Your task to perform on an android device: check android version Image 0: 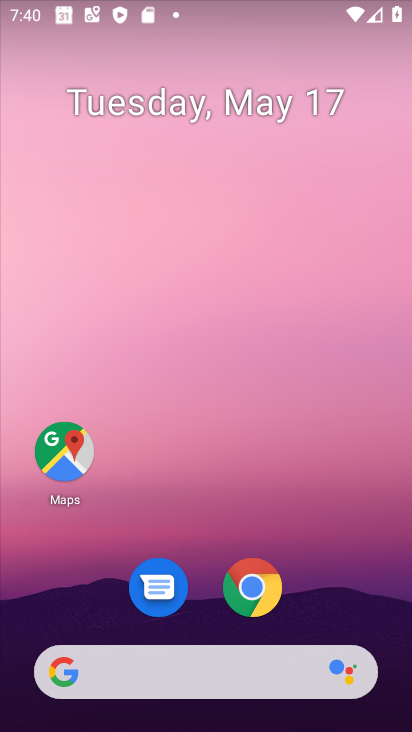
Step 0: drag from (197, 647) to (197, 350)
Your task to perform on an android device: check android version Image 1: 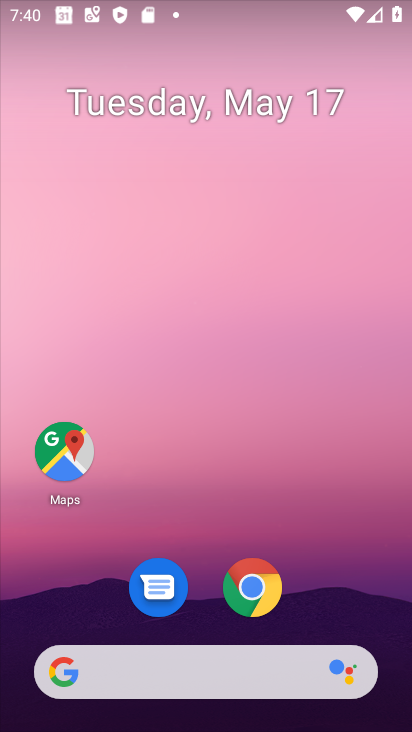
Step 1: drag from (216, 614) to (196, 204)
Your task to perform on an android device: check android version Image 2: 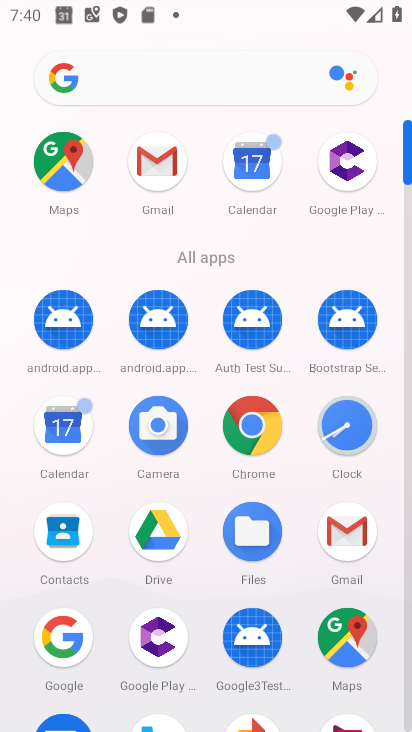
Step 2: drag from (209, 641) to (209, 166)
Your task to perform on an android device: check android version Image 3: 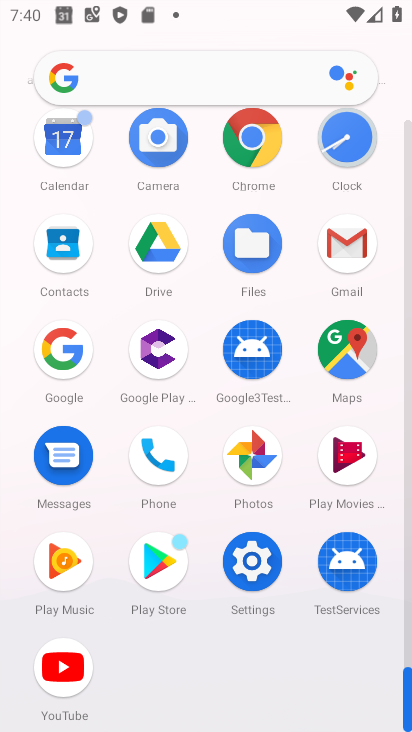
Step 3: click (251, 574)
Your task to perform on an android device: check android version Image 4: 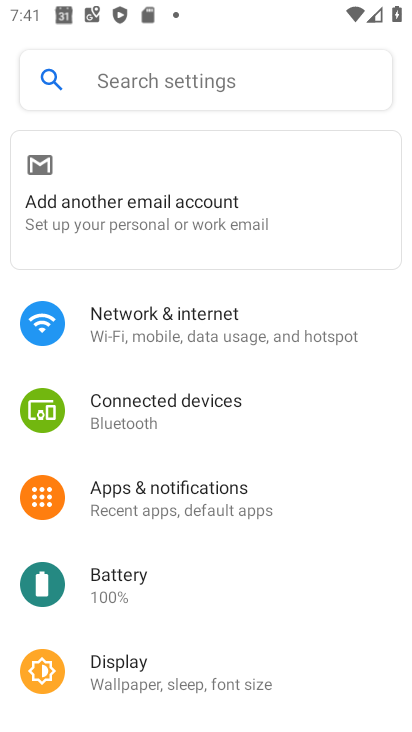
Step 4: drag from (206, 692) to (205, 354)
Your task to perform on an android device: check android version Image 5: 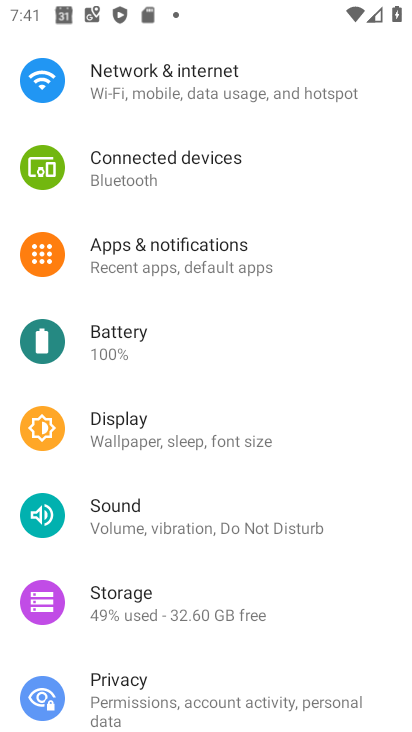
Step 5: drag from (183, 718) to (180, 381)
Your task to perform on an android device: check android version Image 6: 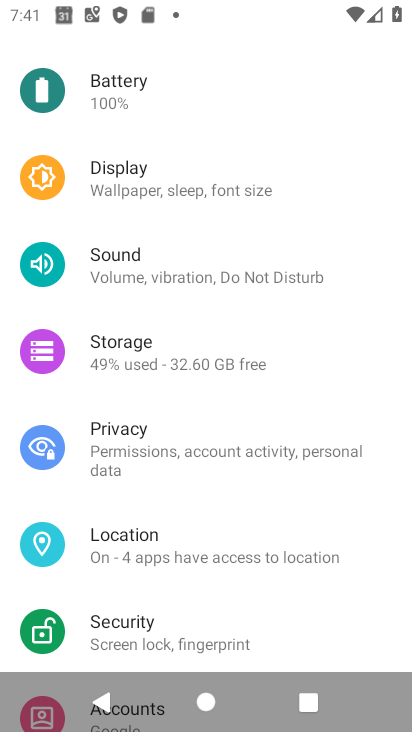
Step 6: drag from (177, 663) to (176, 281)
Your task to perform on an android device: check android version Image 7: 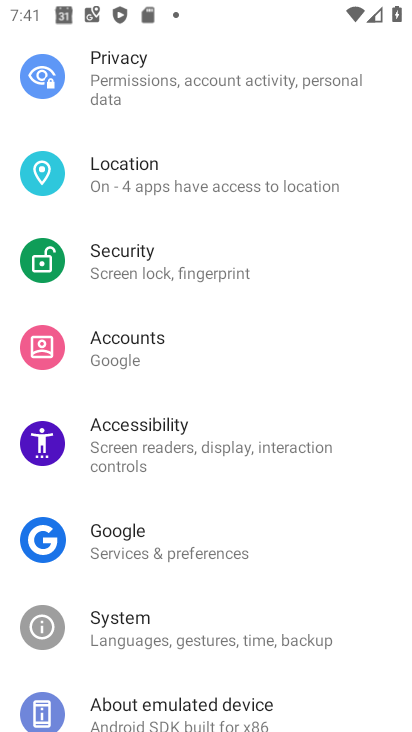
Step 7: click (166, 714)
Your task to perform on an android device: check android version Image 8: 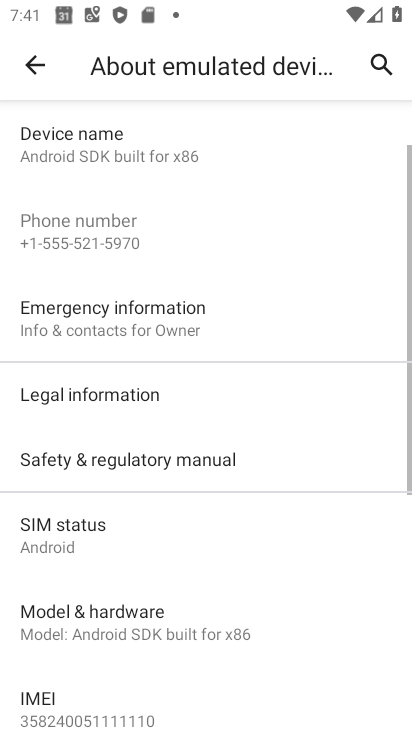
Step 8: drag from (187, 695) to (201, 310)
Your task to perform on an android device: check android version Image 9: 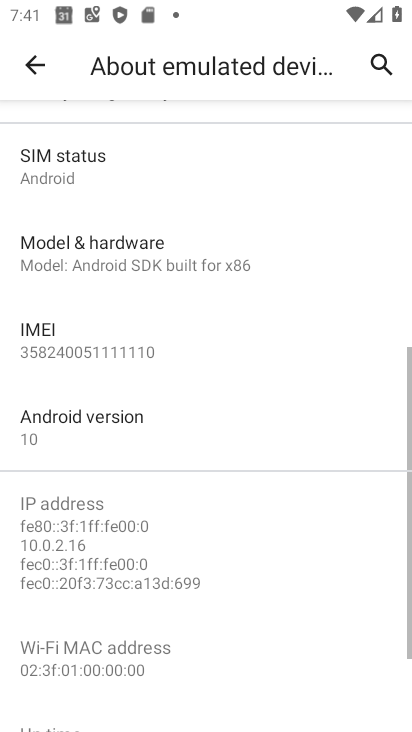
Step 9: drag from (189, 686) to (185, 351)
Your task to perform on an android device: check android version Image 10: 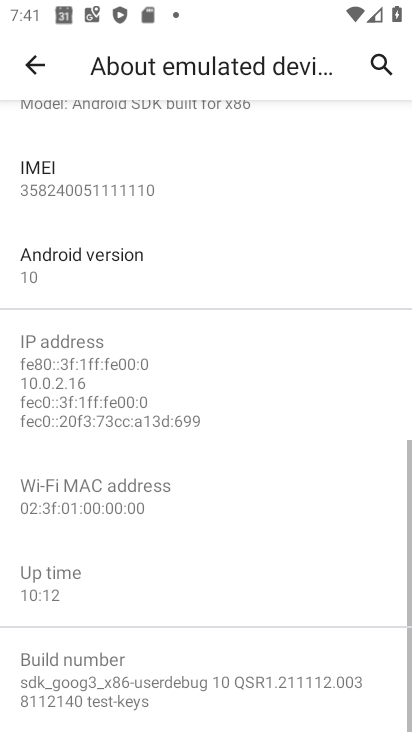
Step 10: click (94, 262)
Your task to perform on an android device: check android version Image 11: 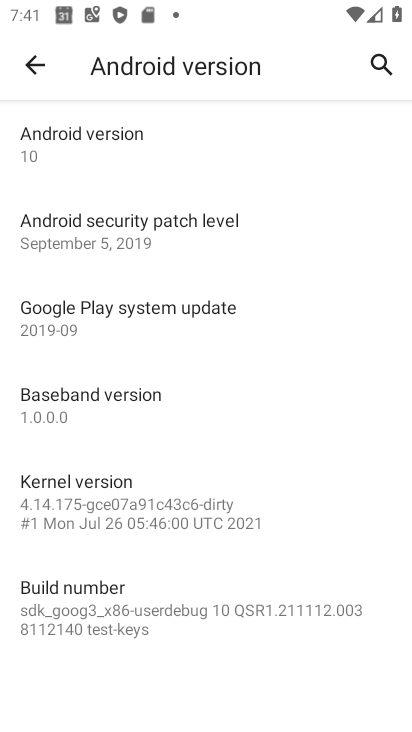
Step 11: task complete